Your task to perform on an android device: turn off location history Image 0: 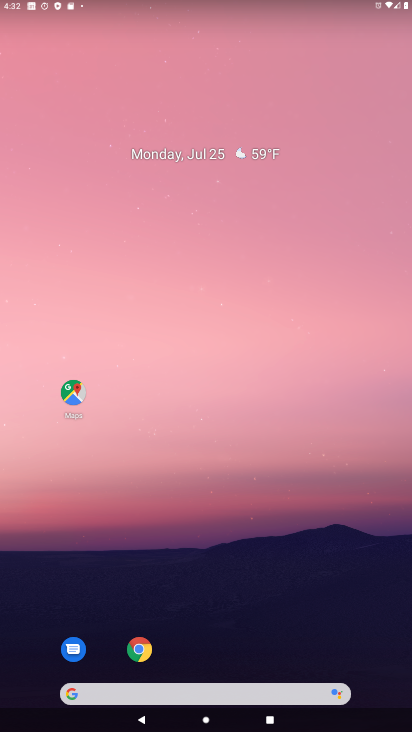
Step 0: drag from (221, 651) to (206, 81)
Your task to perform on an android device: turn off location history Image 1: 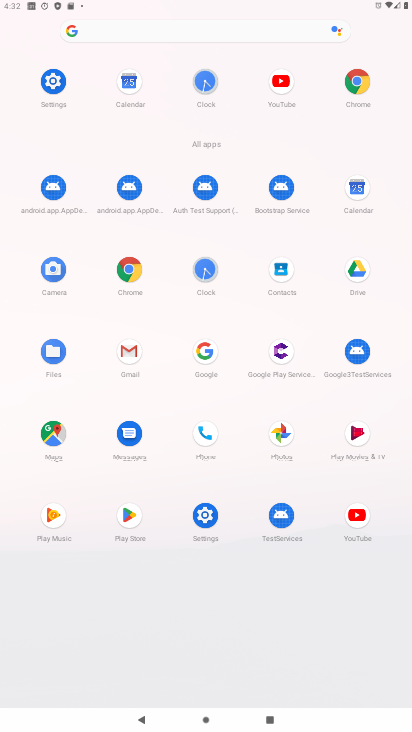
Step 1: click (44, 436)
Your task to perform on an android device: turn off location history Image 2: 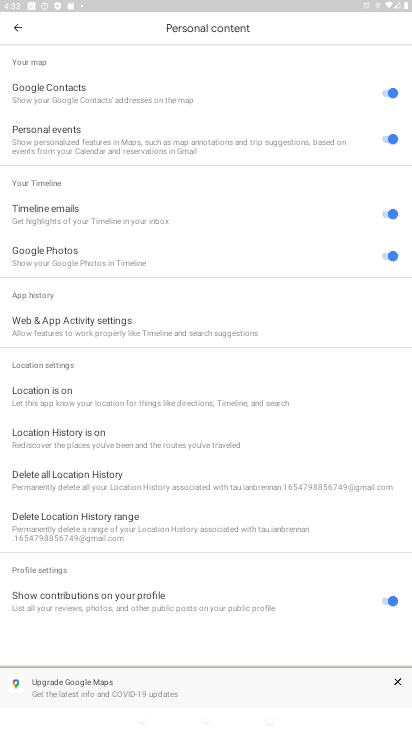
Step 2: click (172, 439)
Your task to perform on an android device: turn off location history Image 3: 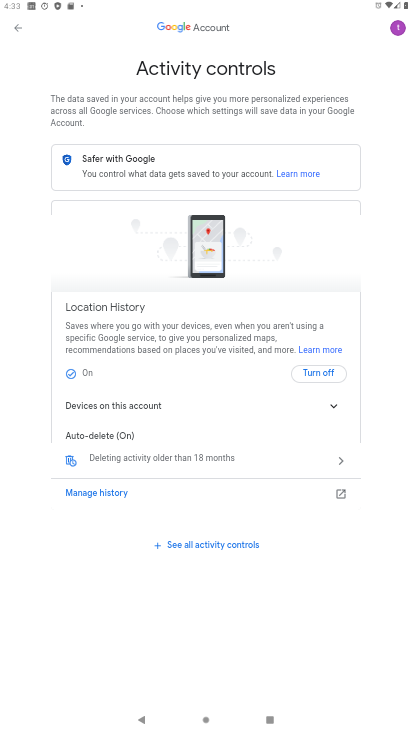
Step 3: click (319, 376)
Your task to perform on an android device: turn off location history Image 4: 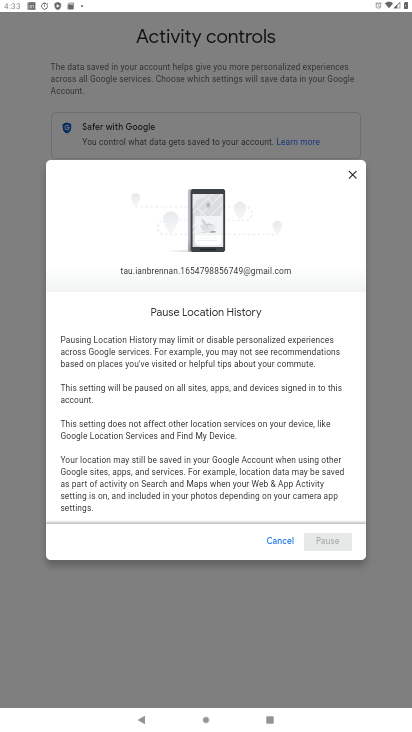
Step 4: drag from (302, 487) to (241, 123)
Your task to perform on an android device: turn off location history Image 5: 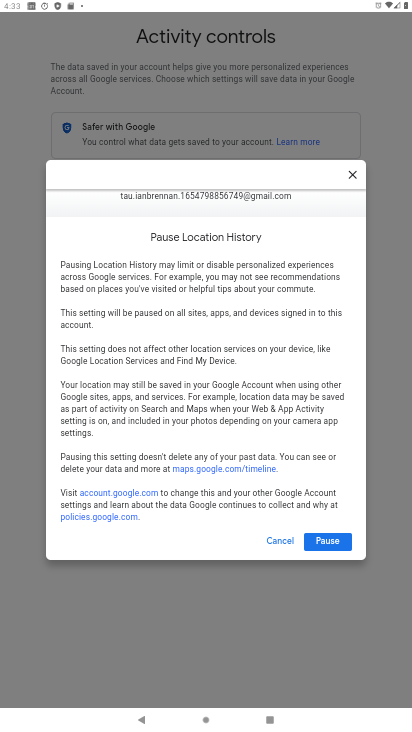
Step 5: click (332, 544)
Your task to perform on an android device: turn off location history Image 6: 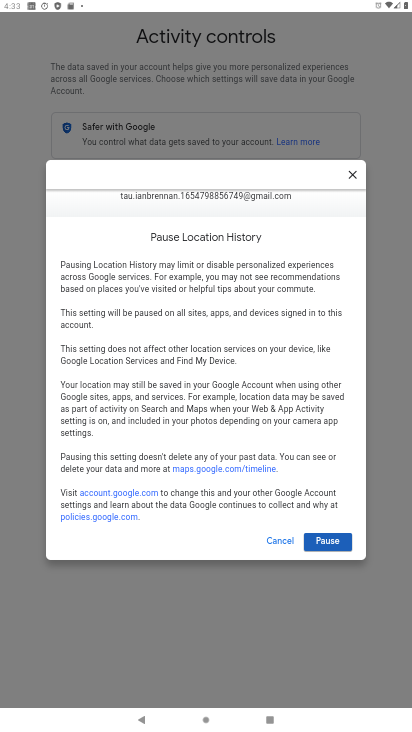
Step 6: click (332, 544)
Your task to perform on an android device: turn off location history Image 7: 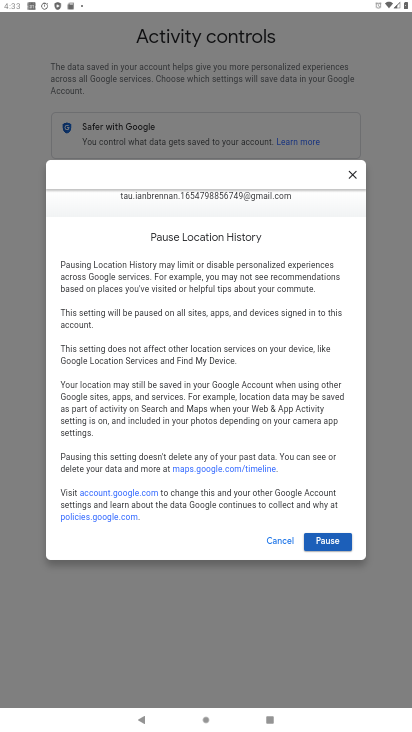
Step 7: click (336, 543)
Your task to perform on an android device: turn off location history Image 8: 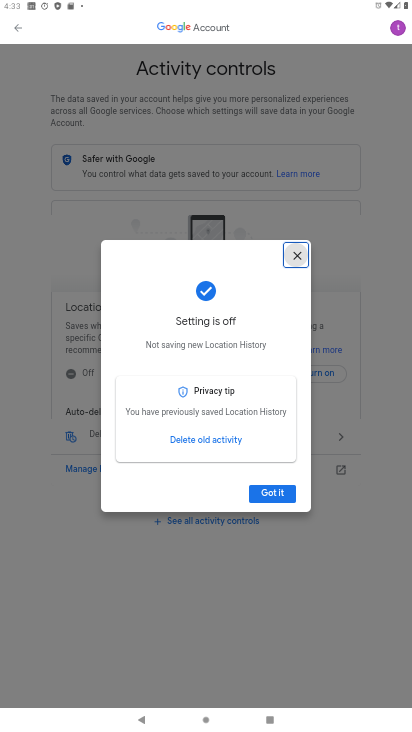
Step 8: click (273, 497)
Your task to perform on an android device: turn off location history Image 9: 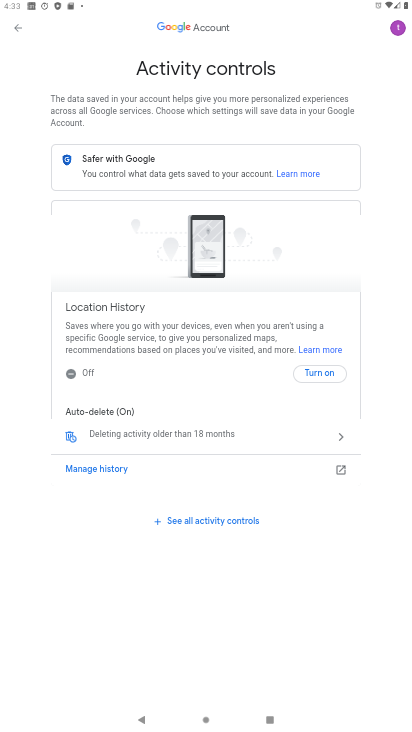
Step 9: task complete